Your task to perform on an android device: check google app version Image 0: 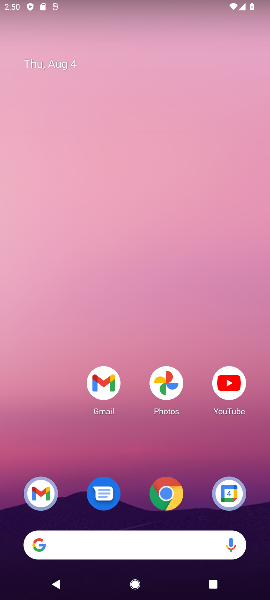
Step 0: drag from (153, 513) to (171, 288)
Your task to perform on an android device: check google app version Image 1: 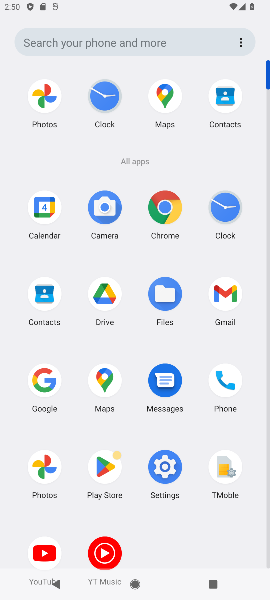
Step 1: click (48, 390)
Your task to perform on an android device: check google app version Image 2: 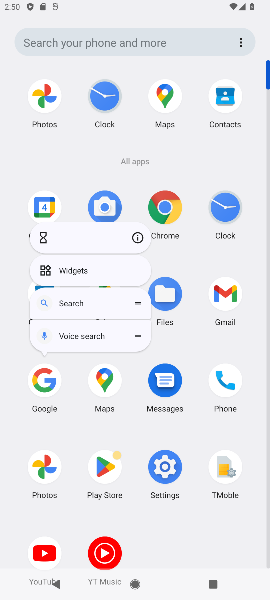
Step 2: click (137, 233)
Your task to perform on an android device: check google app version Image 3: 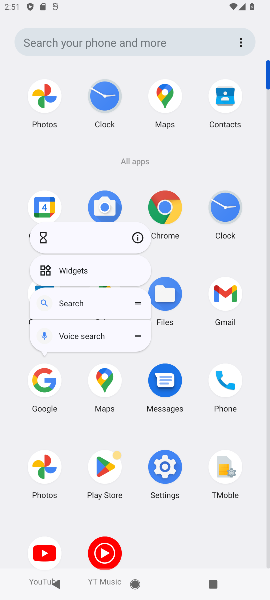
Step 3: click (164, 334)
Your task to perform on an android device: check google app version Image 4: 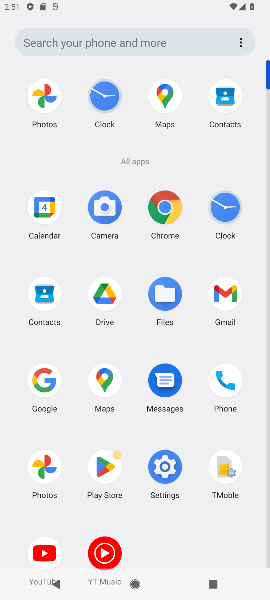
Step 4: click (39, 375)
Your task to perform on an android device: check google app version Image 5: 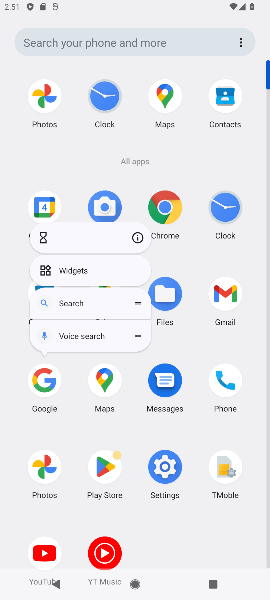
Step 5: click (140, 230)
Your task to perform on an android device: check google app version Image 6: 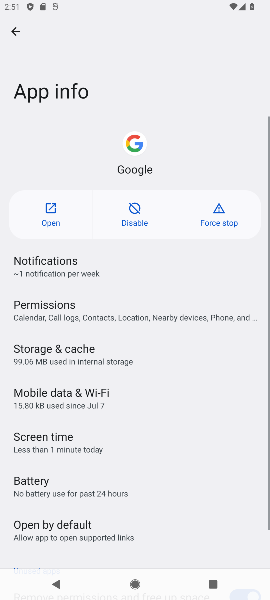
Step 6: task complete